Your task to perform on an android device: turn off sleep mode Image 0: 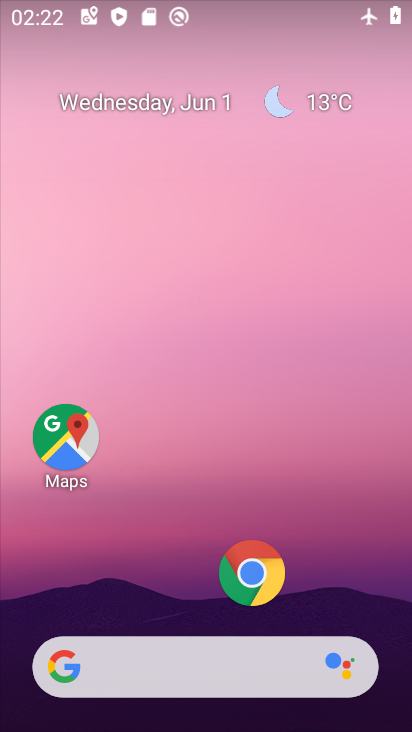
Step 0: drag from (195, 630) to (94, 38)
Your task to perform on an android device: turn off sleep mode Image 1: 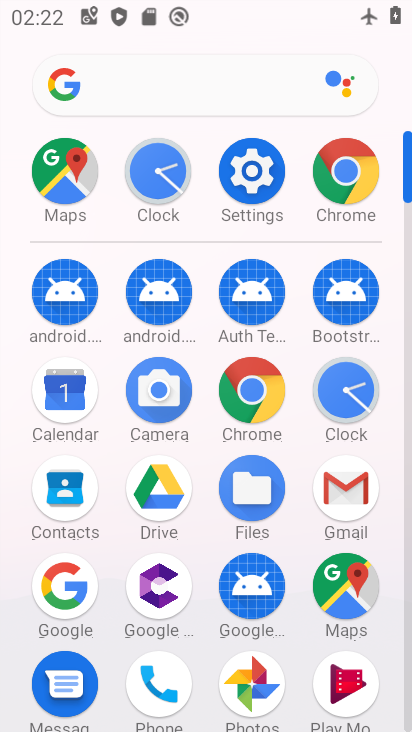
Step 1: click (235, 187)
Your task to perform on an android device: turn off sleep mode Image 2: 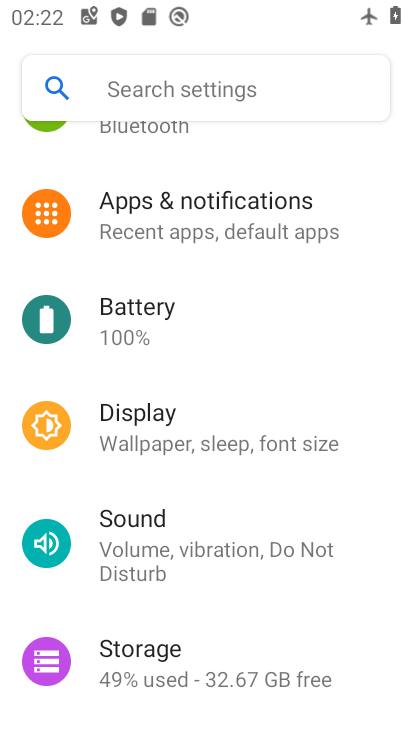
Step 2: click (139, 448)
Your task to perform on an android device: turn off sleep mode Image 3: 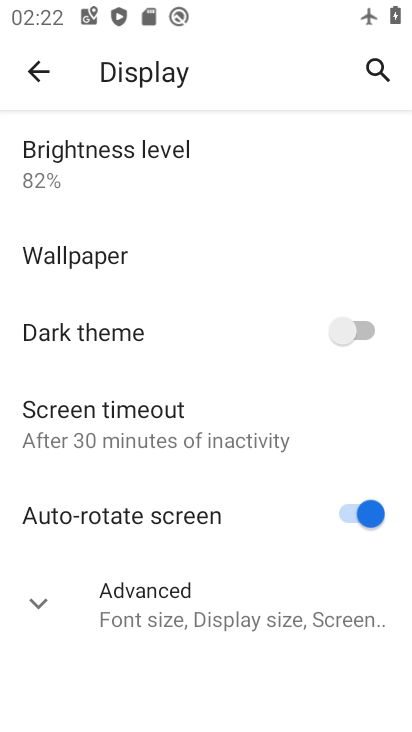
Step 3: task complete